Your task to perform on an android device: set the stopwatch Image 0: 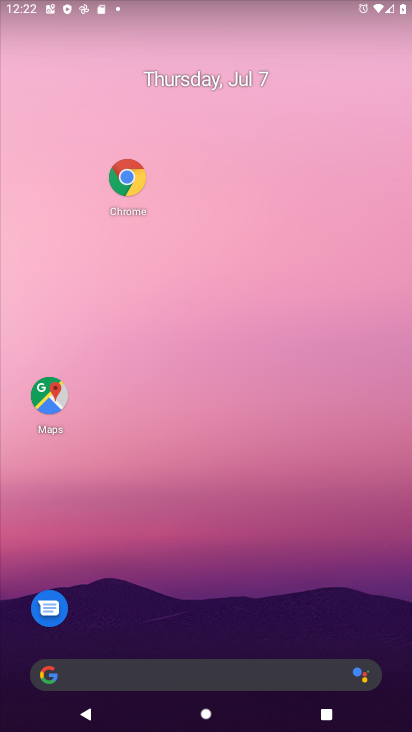
Step 0: drag from (229, 660) to (243, 155)
Your task to perform on an android device: set the stopwatch Image 1: 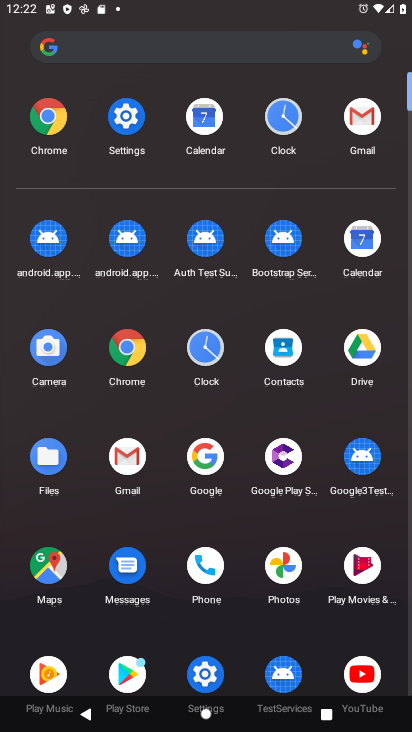
Step 1: click (280, 111)
Your task to perform on an android device: set the stopwatch Image 2: 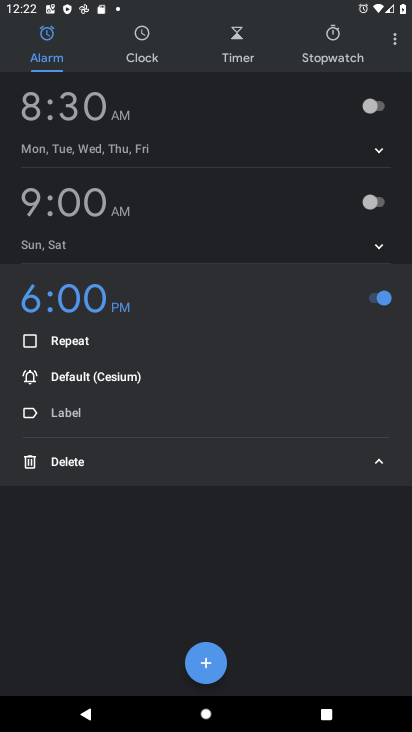
Step 2: click (347, 57)
Your task to perform on an android device: set the stopwatch Image 3: 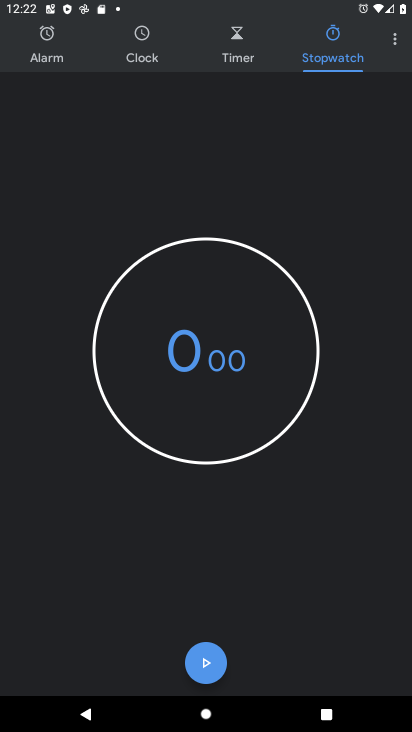
Step 3: click (219, 651)
Your task to perform on an android device: set the stopwatch Image 4: 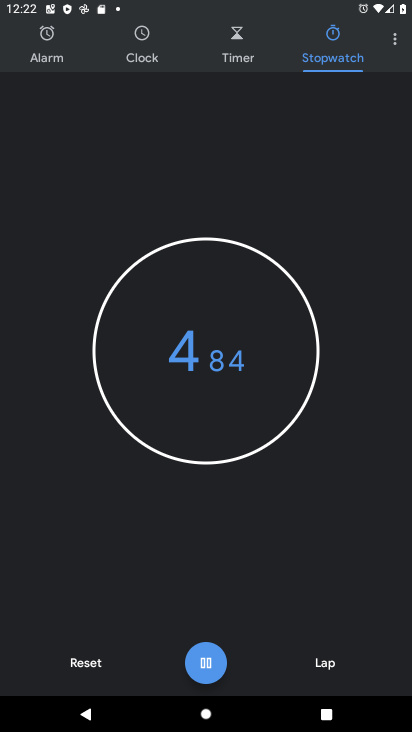
Step 4: click (204, 662)
Your task to perform on an android device: set the stopwatch Image 5: 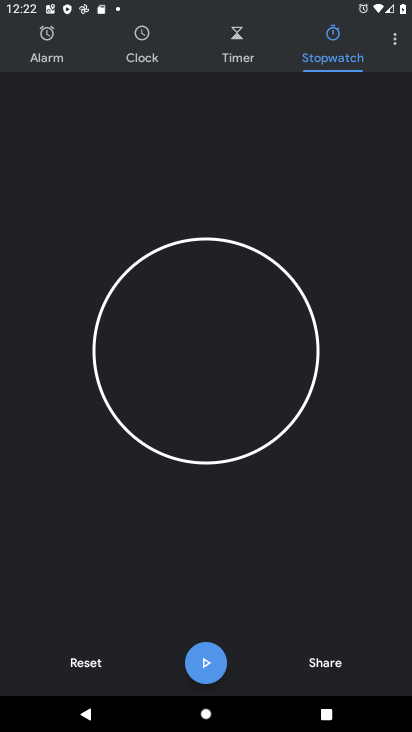
Step 5: task complete